Your task to perform on an android device: change notification settings in the gmail app Image 0: 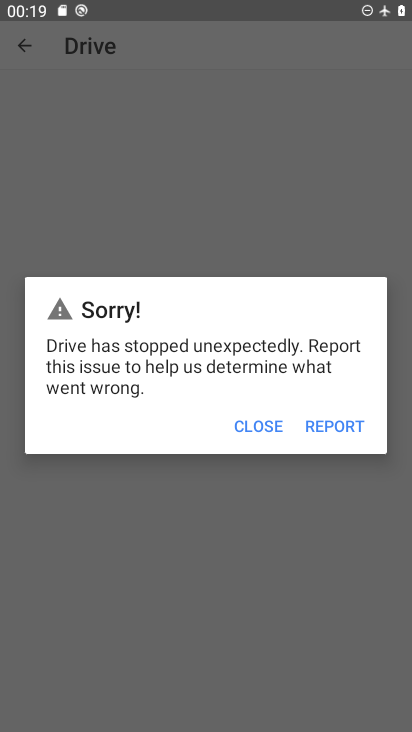
Step 0: press home button
Your task to perform on an android device: change notification settings in the gmail app Image 1: 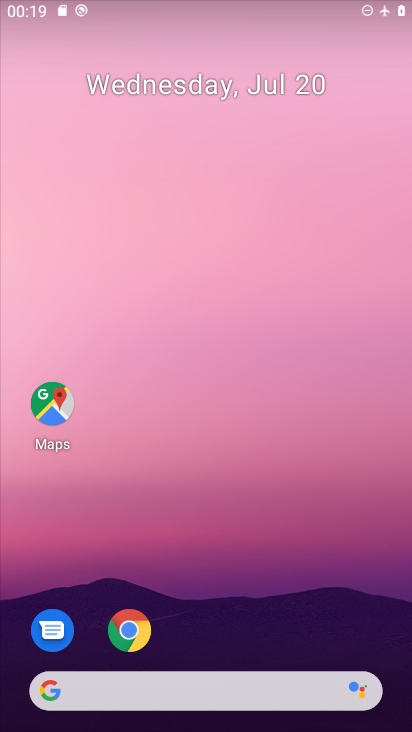
Step 1: drag from (222, 617) to (231, 146)
Your task to perform on an android device: change notification settings in the gmail app Image 2: 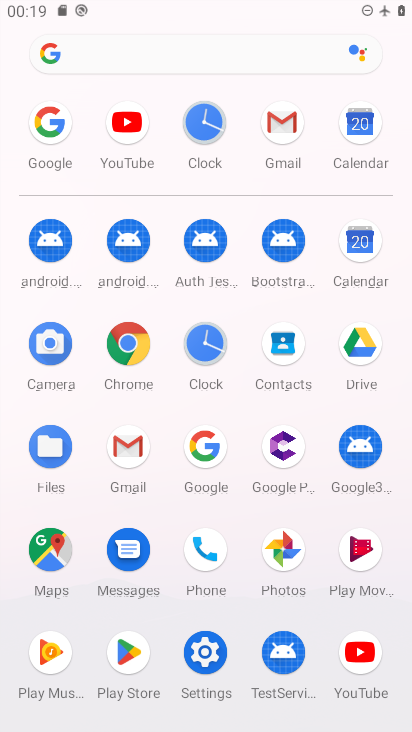
Step 2: click (271, 125)
Your task to perform on an android device: change notification settings in the gmail app Image 3: 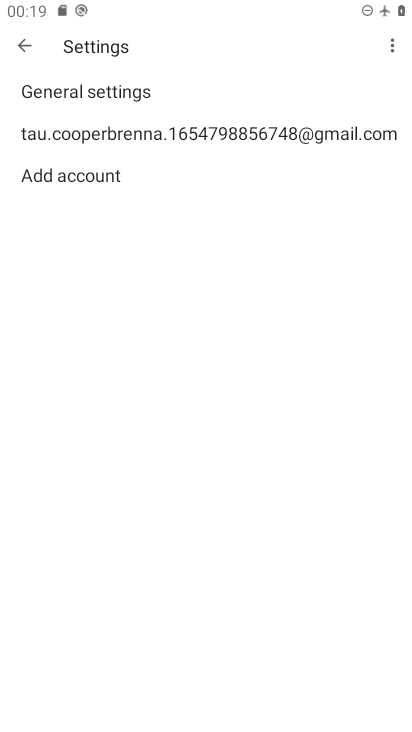
Step 3: click (132, 140)
Your task to perform on an android device: change notification settings in the gmail app Image 4: 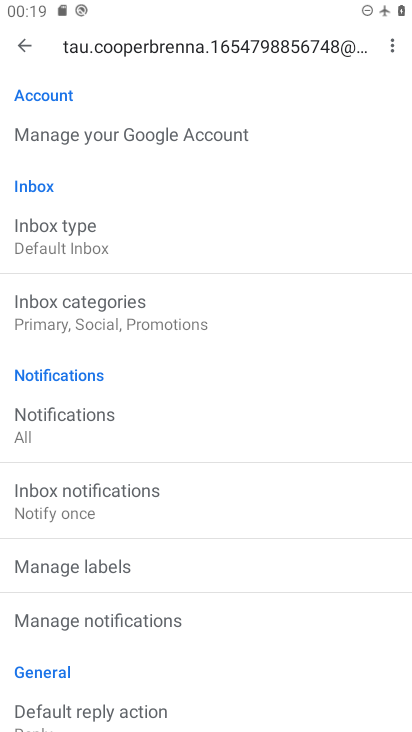
Step 4: click (103, 611)
Your task to perform on an android device: change notification settings in the gmail app Image 5: 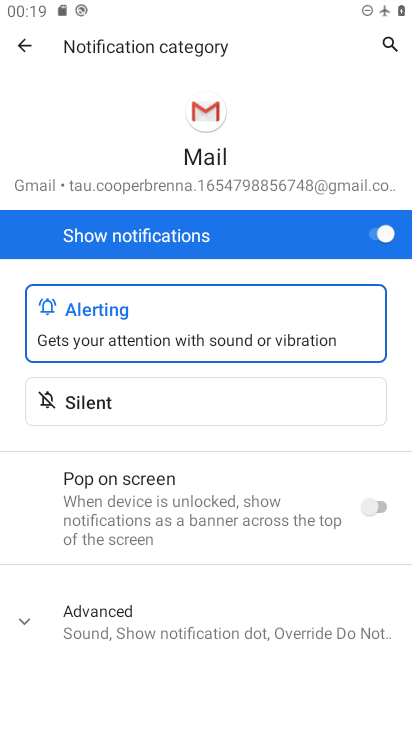
Step 5: click (370, 226)
Your task to perform on an android device: change notification settings in the gmail app Image 6: 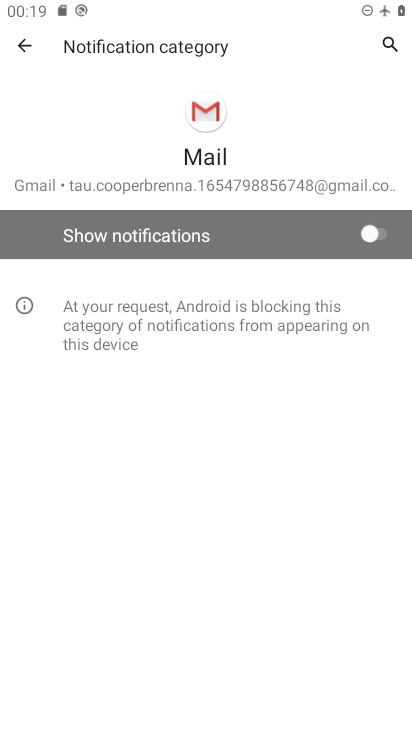
Step 6: task complete